Your task to perform on an android device: Open battery settings Image 0: 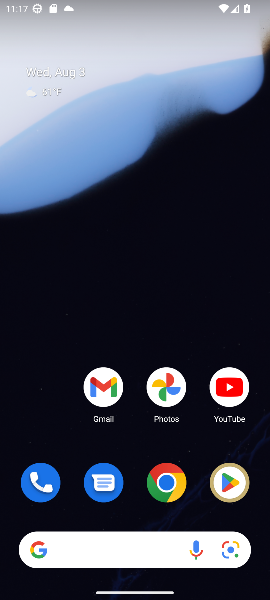
Step 0: task complete